Your task to perform on an android device: see tabs open on other devices in the chrome app Image 0: 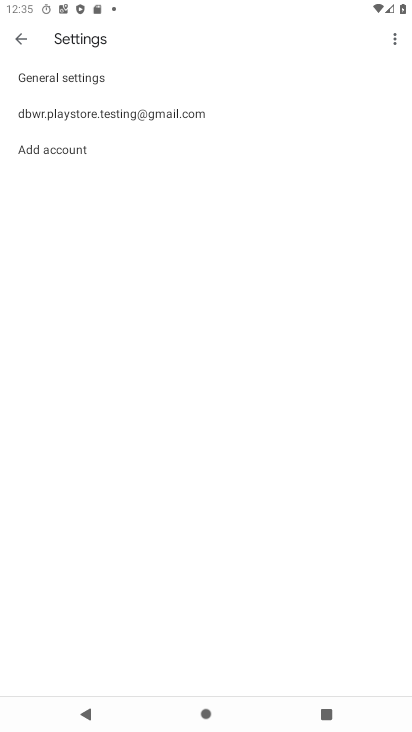
Step 0: press home button
Your task to perform on an android device: see tabs open on other devices in the chrome app Image 1: 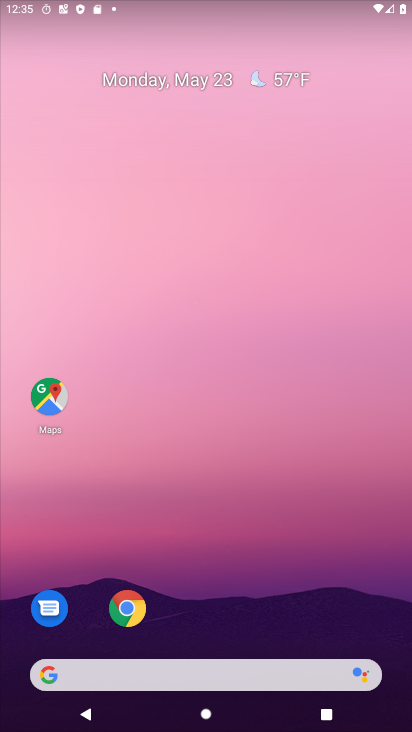
Step 1: drag from (308, 611) to (293, 186)
Your task to perform on an android device: see tabs open on other devices in the chrome app Image 2: 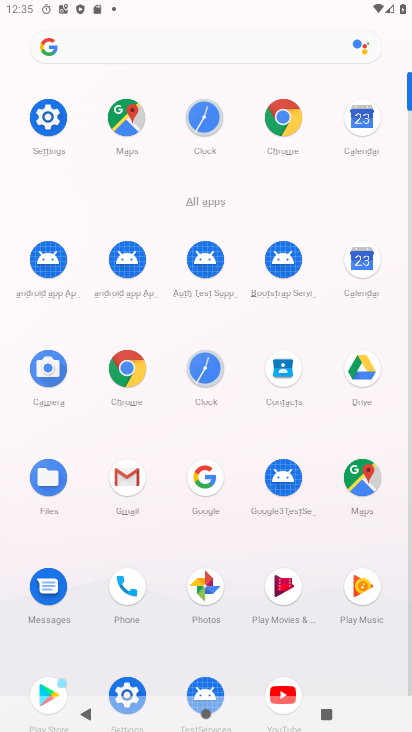
Step 2: click (130, 373)
Your task to perform on an android device: see tabs open on other devices in the chrome app Image 3: 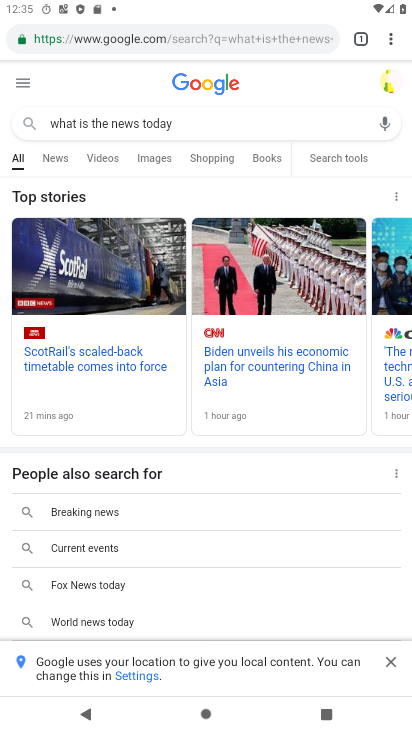
Step 3: click (367, 35)
Your task to perform on an android device: see tabs open on other devices in the chrome app Image 4: 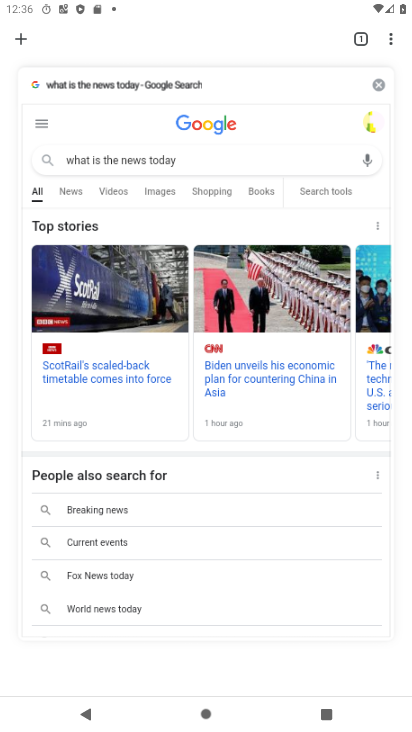
Step 4: click (362, 42)
Your task to perform on an android device: see tabs open on other devices in the chrome app Image 5: 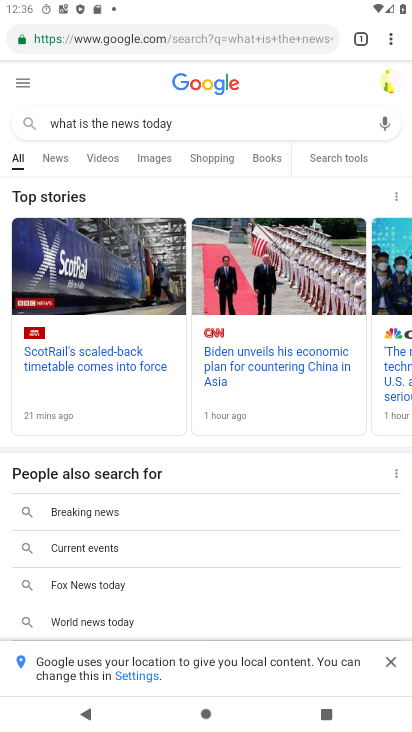
Step 5: click (370, 35)
Your task to perform on an android device: see tabs open on other devices in the chrome app Image 6: 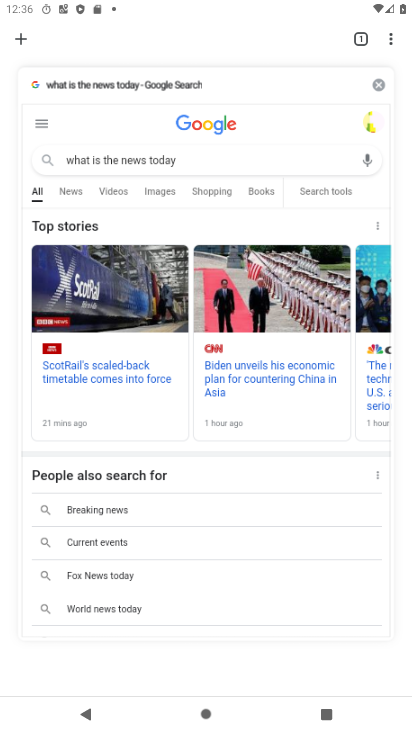
Step 6: task complete